Your task to perform on an android device: open app "DuckDuckGo Privacy Browser" (install if not already installed) Image 0: 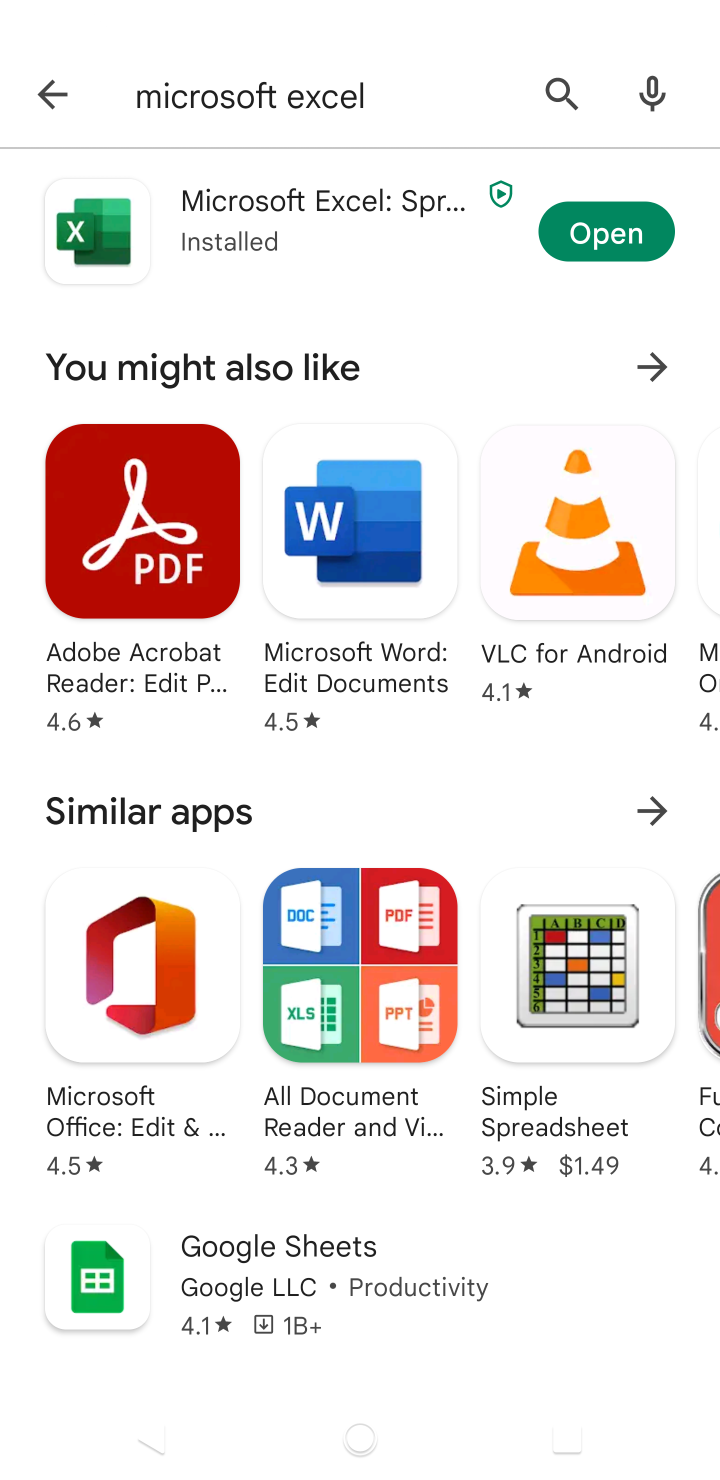
Step 0: press home button
Your task to perform on an android device: open app "DuckDuckGo Privacy Browser" (install if not already installed) Image 1: 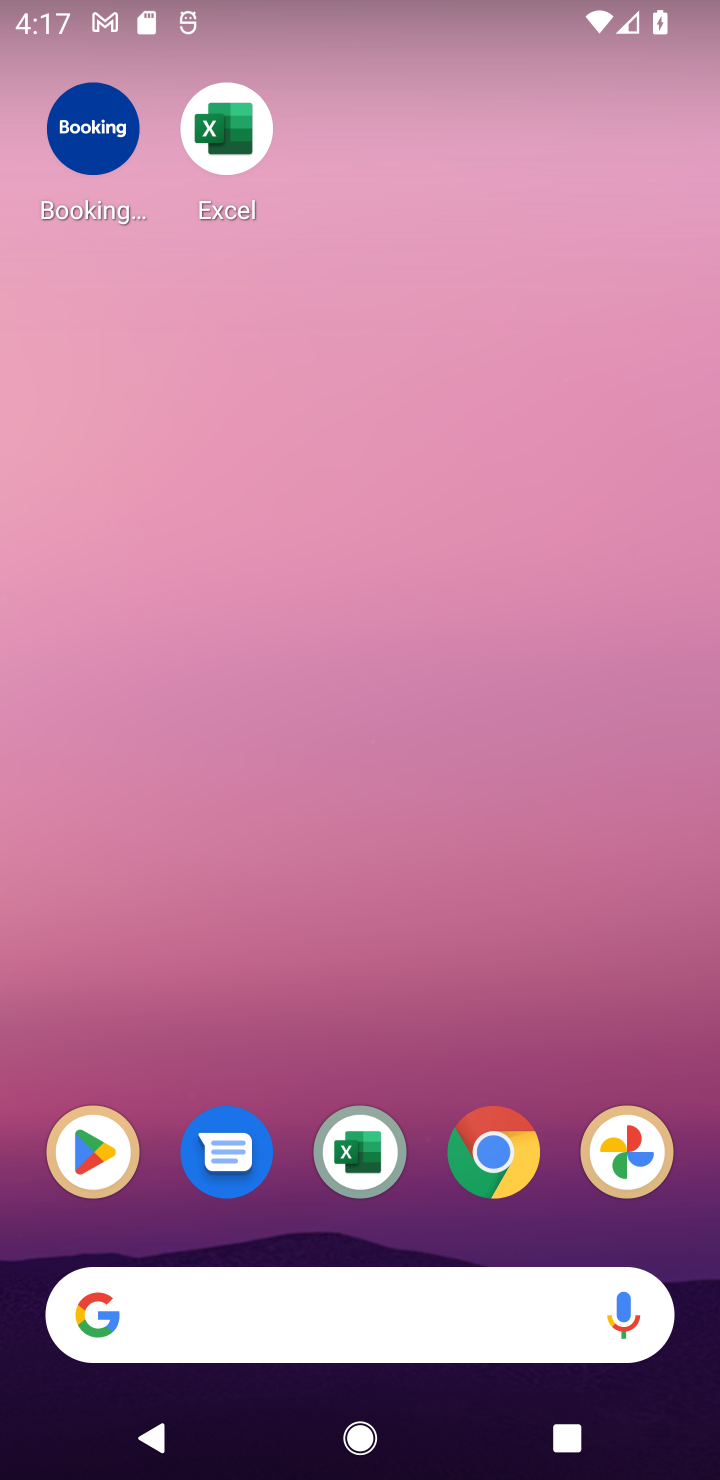
Step 1: drag from (291, 1273) to (189, 205)
Your task to perform on an android device: open app "DuckDuckGo Privacy Browser" (install if not already installed) Image 2: 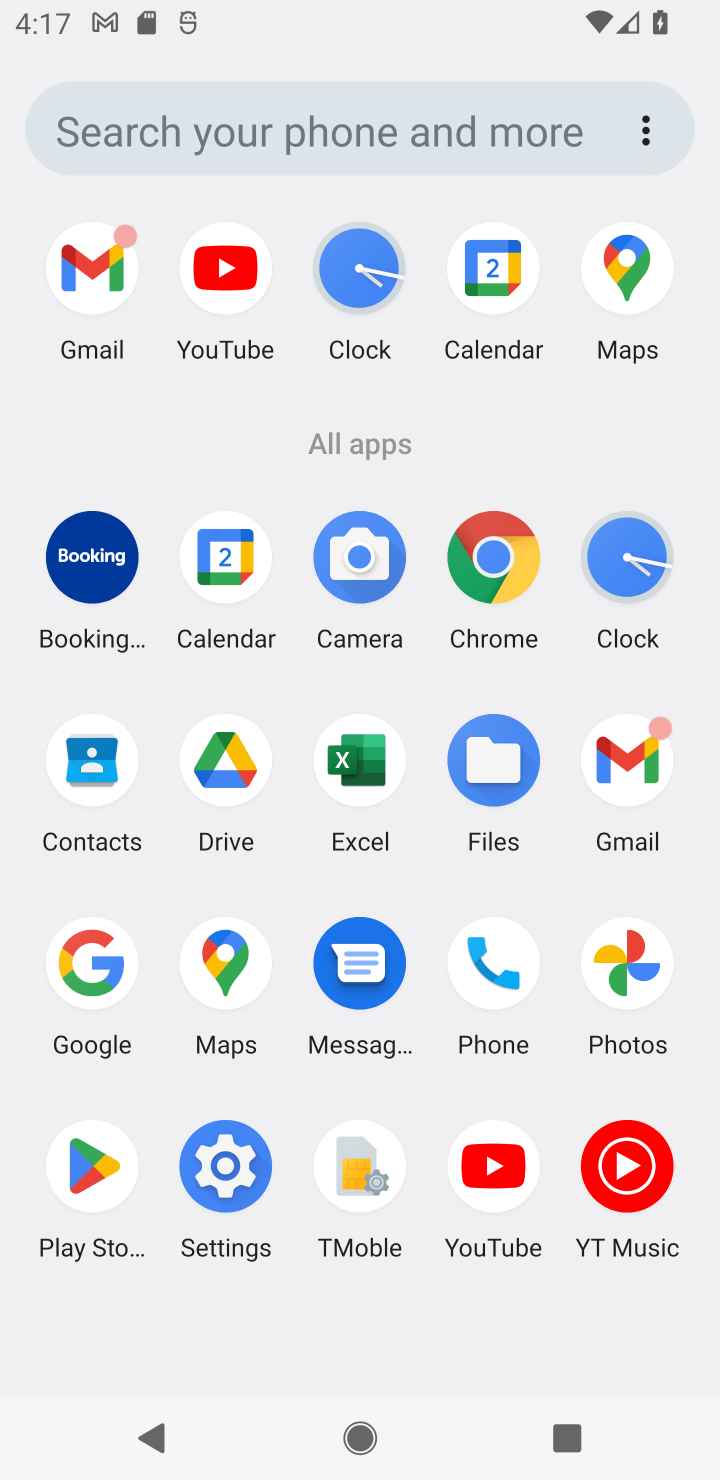
Step 2: click (90, 1185)
Your task to perform on an android device: open app "DuckDuckGo Privacy Browser" (install if not already installed) Image 3: 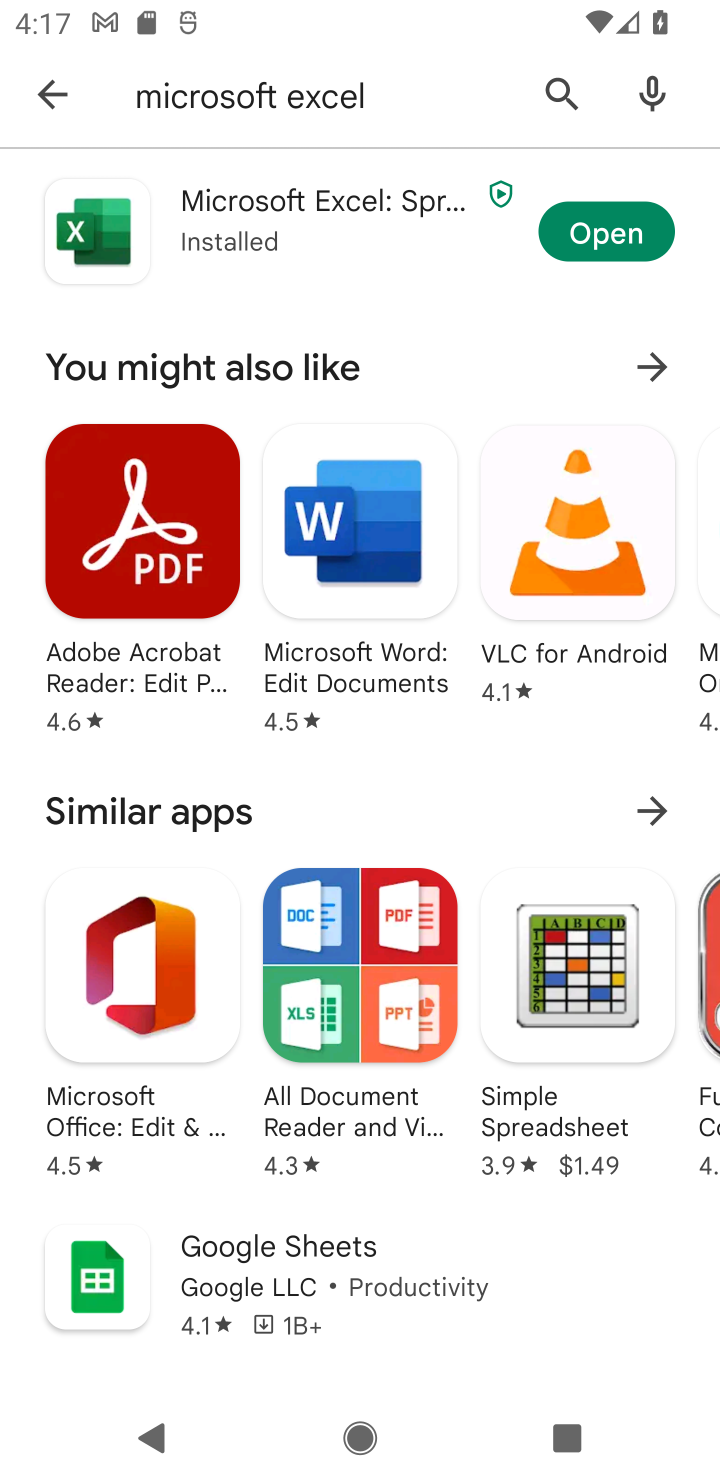
Step 3: click (40, 105)
Your task to perform on an android device: open app "DuckDuckGo Privacy Browser" (install if not already installed) Image 4: 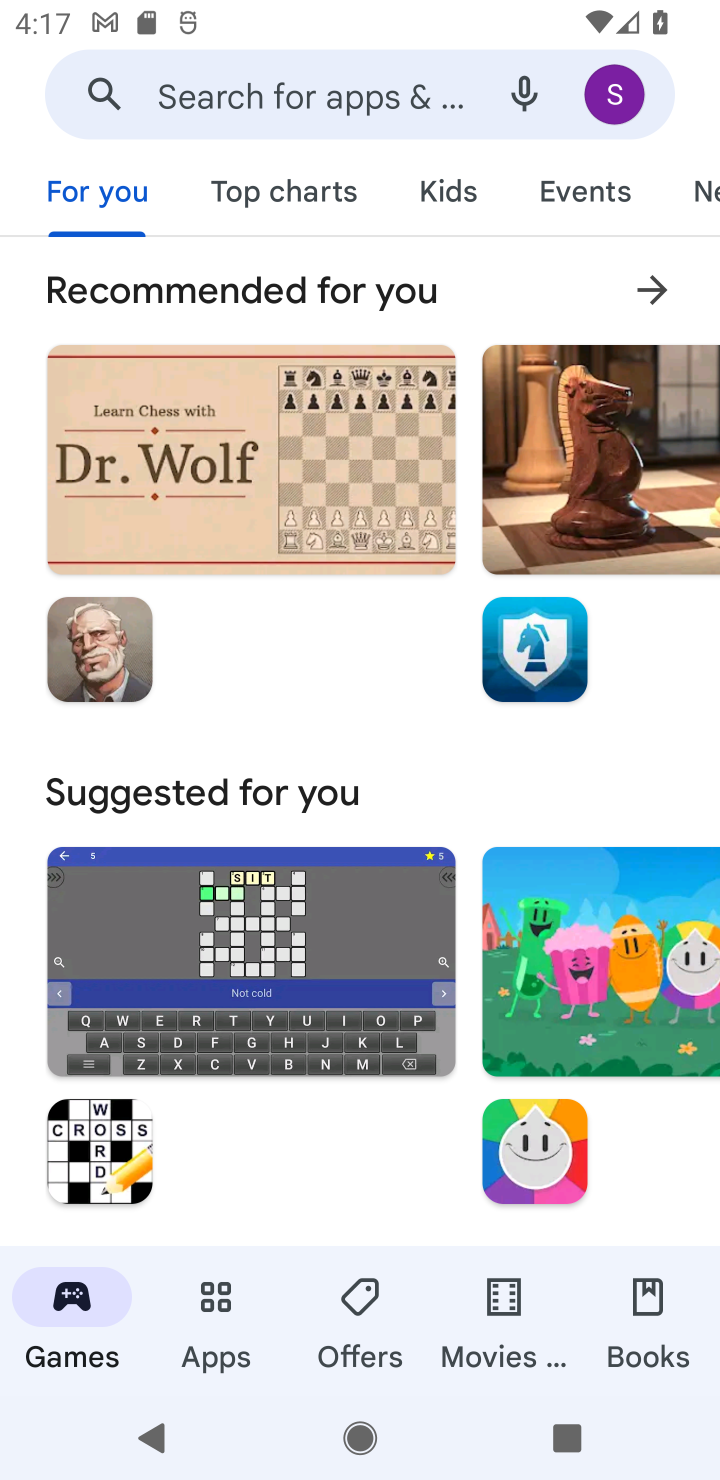
Step 4: click (178, 101)
Your task to perform on an android device: open app "DuckDuckGo Privacy Browser" (install if not already installed) Image 5: 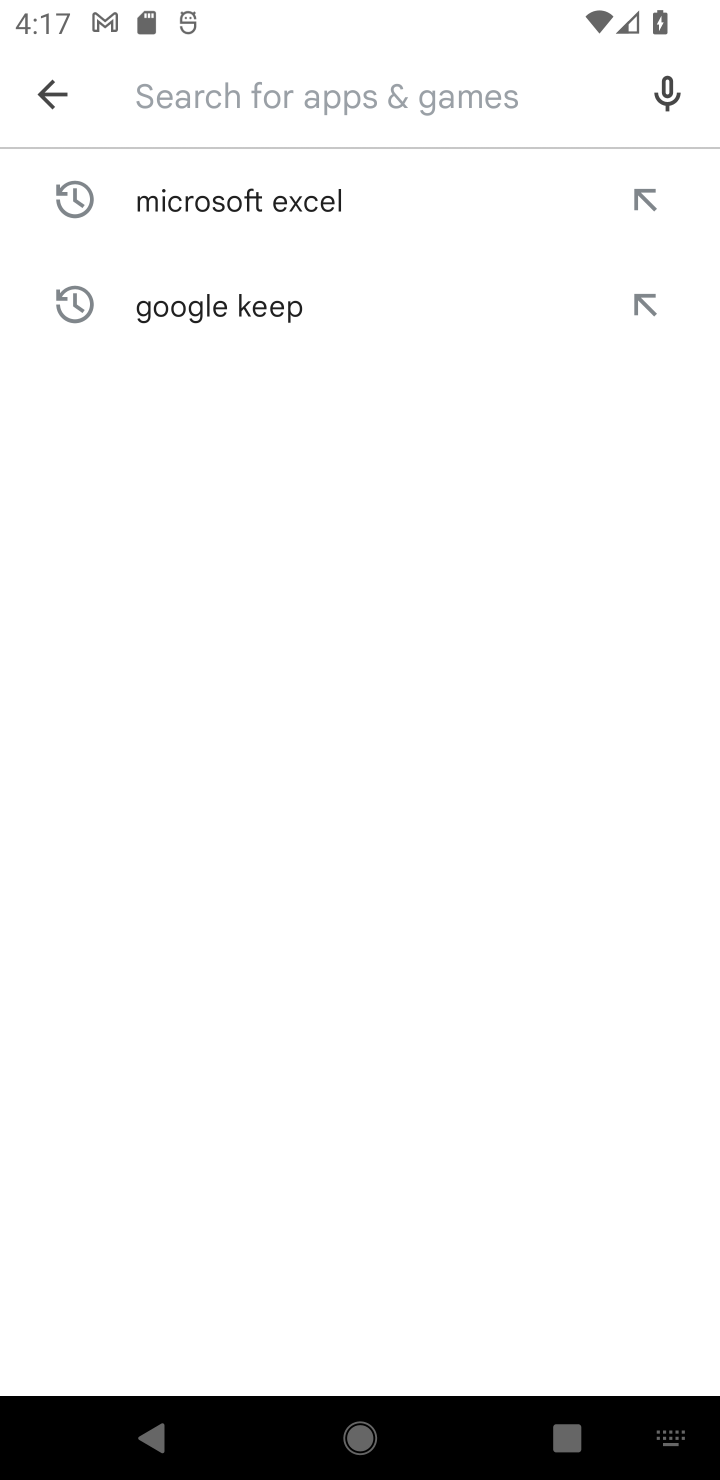
Step 5: type "DuckDuckGo Privacy Browser"
Your task to perform on an android device: open app "DuckDuckGo Privacy Browser" (install if not already installed) Image 6: 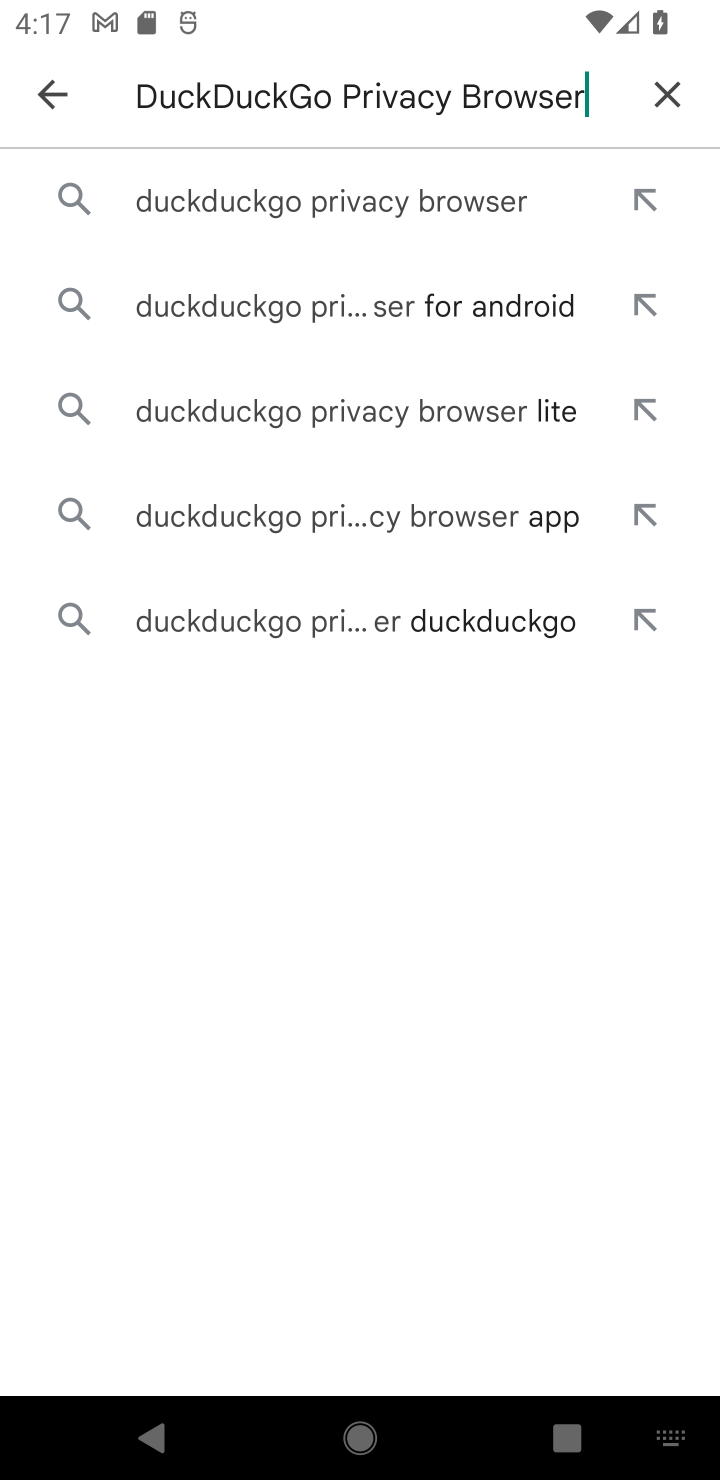
Step 6: click (270, 191)
Your task to perform on an android device: open app "DuckDuckGo Privacy Browser" (install if not already installed) Image 7: 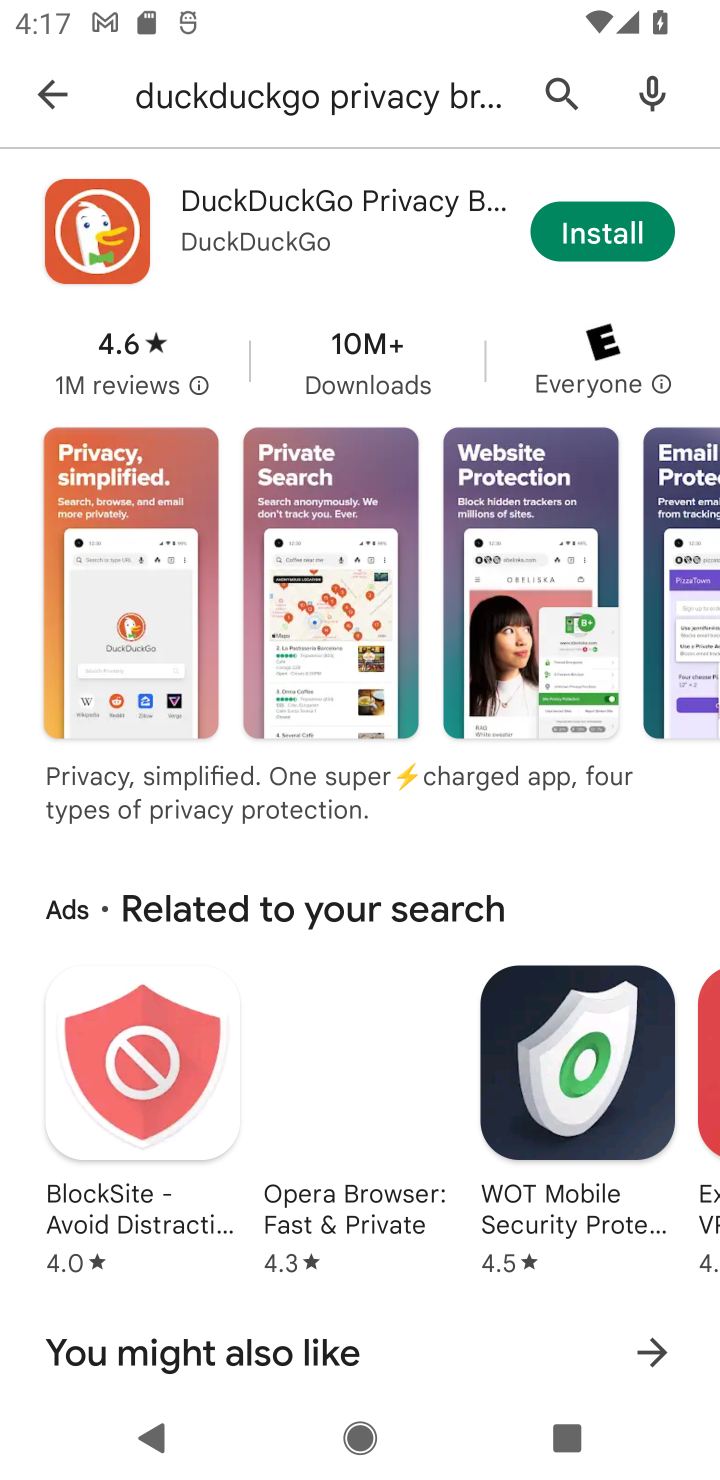
Step 7: click (587, 243)
Your task to perform on an android device: open app "DuckDuckGo Privacy Browser" (install if not already installed) Image 8: 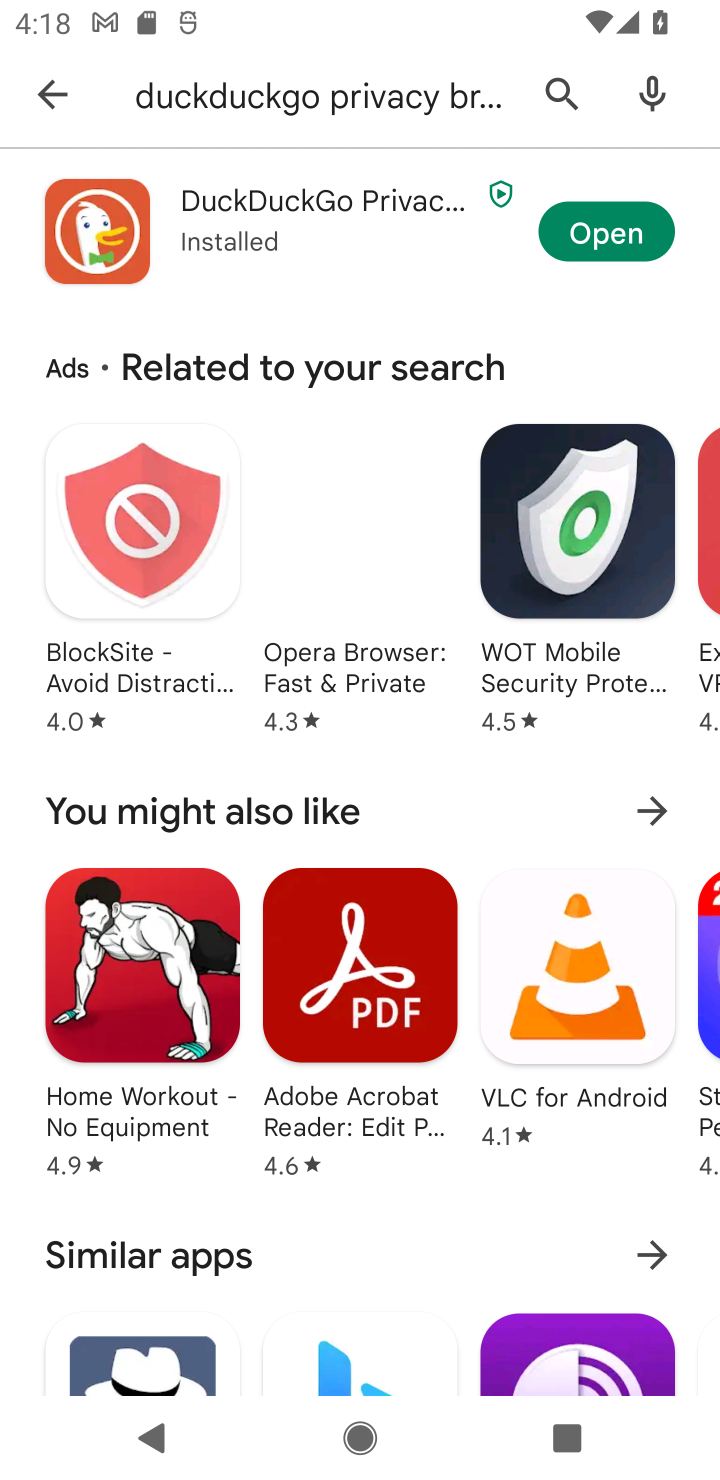
Step 8: click (540, 231)
Your task to perform on an android device: open app "DuckDuckGo Privacy Browser" (install if not already installed) Image 9: 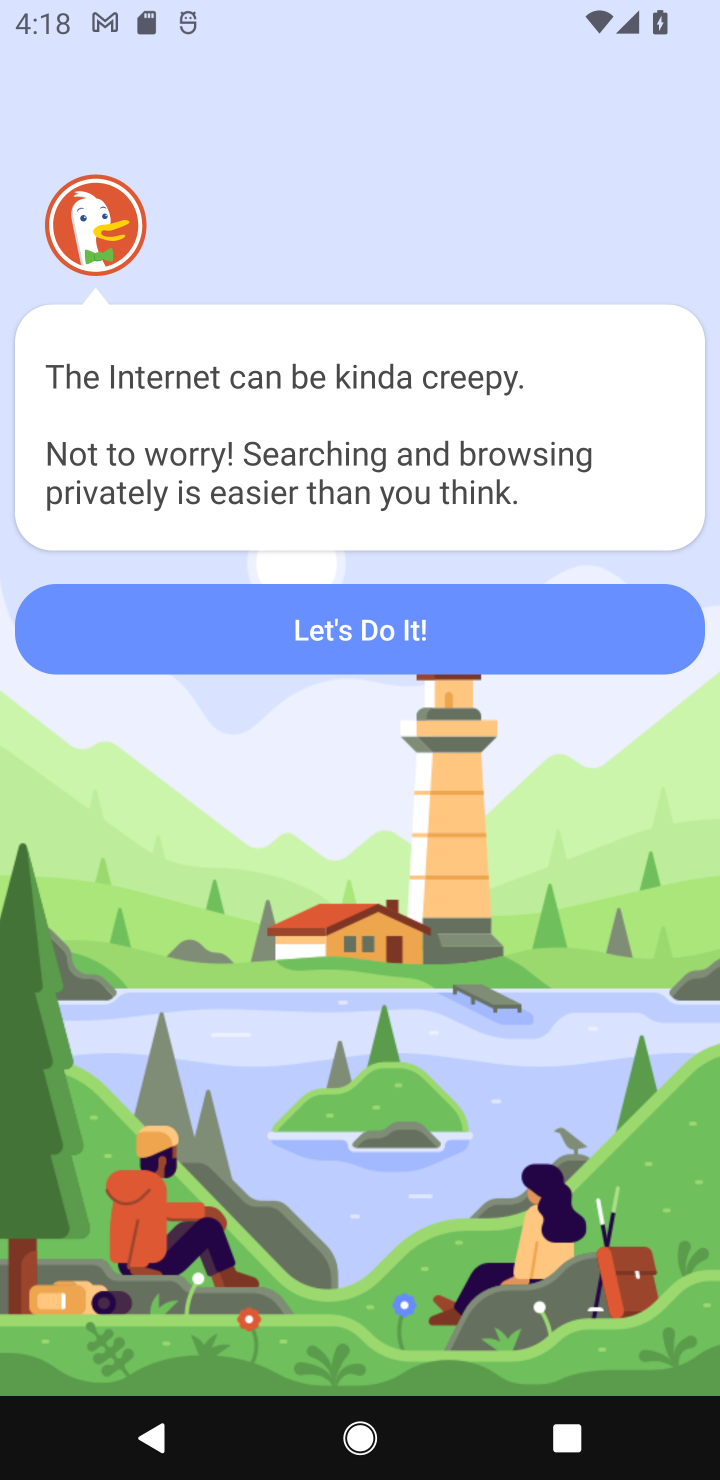
Step 9: task complete